Your task to perform on an android device: Go to sound settings Image 0: 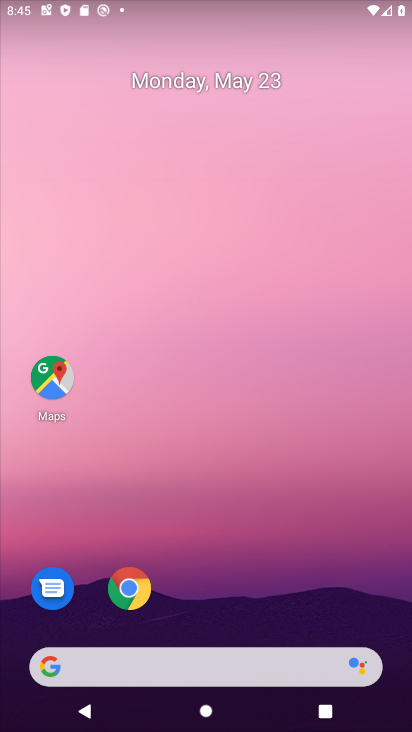
Step 0: drag from (383, 671) to (319, 270)
Your task to perform on an android device: Go to sound settings Image 1: 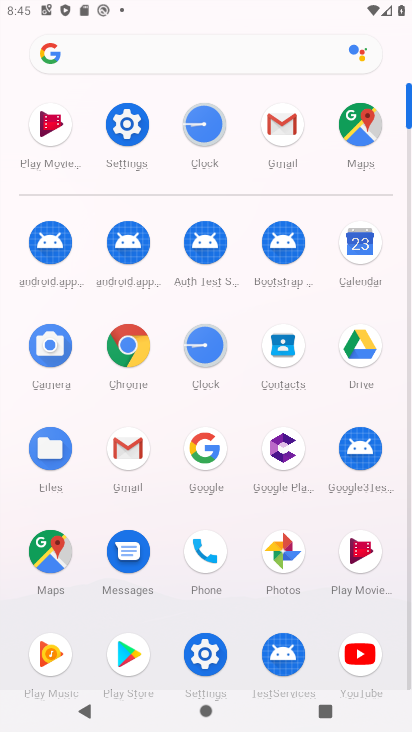
Step 1: click (120, 132)
Your task to perform on an android device: Go to sound settings Image 2: 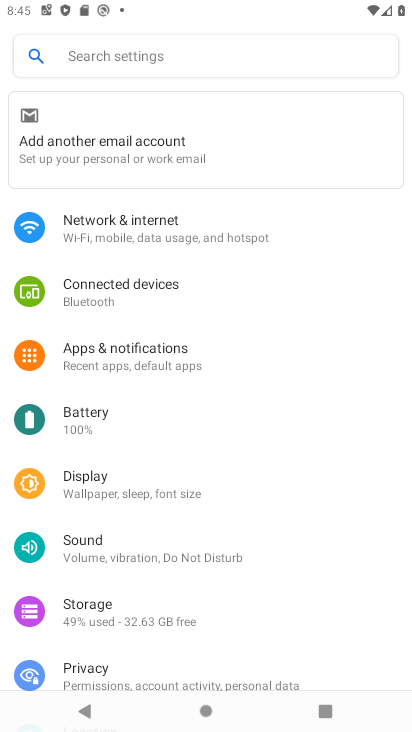
Step 2: click (105, 548)
Your task to perform on an android device: Go to sound settings Image 3: 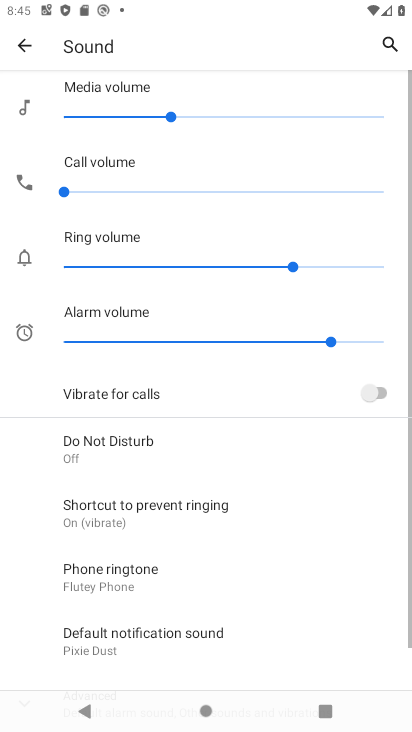
Step 3: drag from (301, 619) to (281, 247)
Your task to perform on an android device: Go to sound settings Image 4: 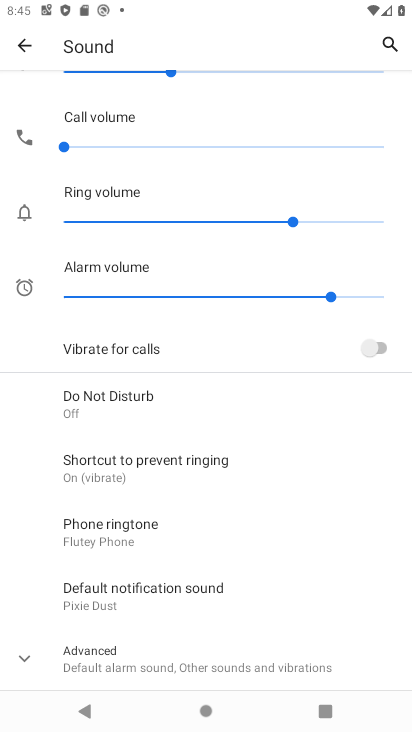
Step 4: click (18, 659)
Your task to perform on an android device: Go to sound settings Image 5: 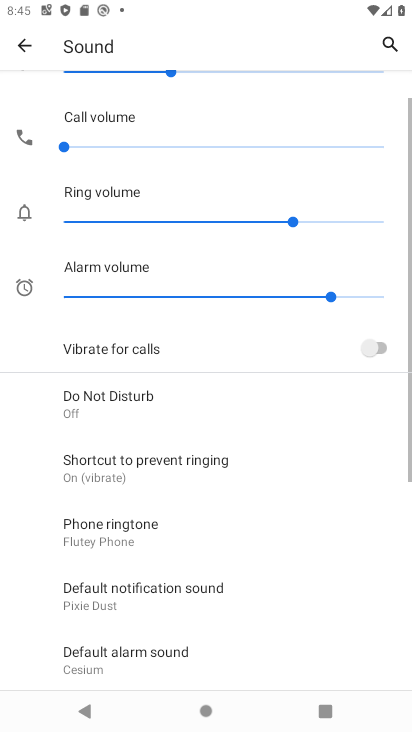
Step 5: task complete